Your task to perform on an android device: Find coffee shops on Maps Image 0: 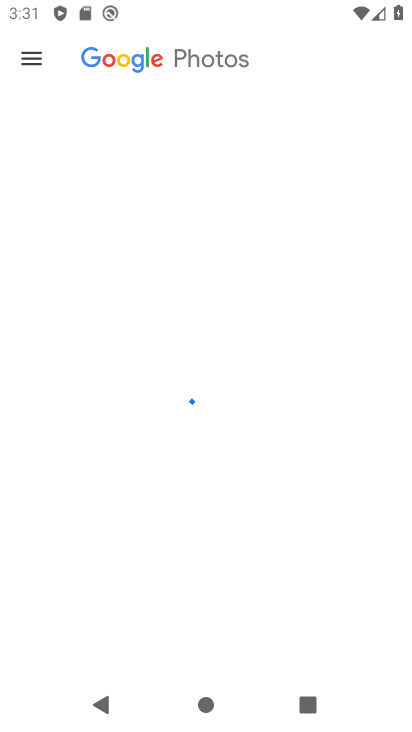
Step 0: press home button
Your task to perform on an android device: Find coffee shops on Maps Image 1: 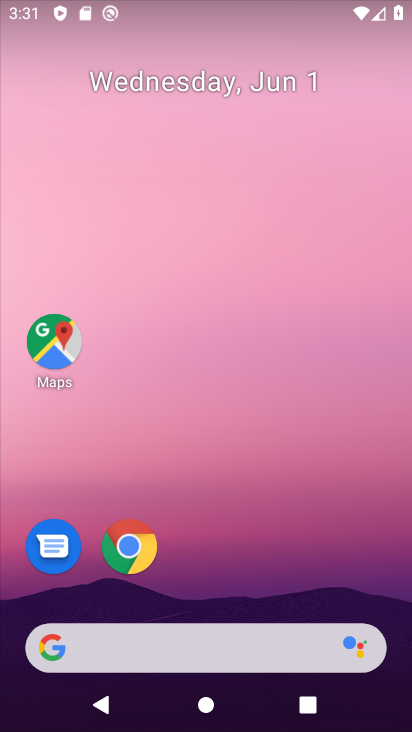
Step 1: click (66, 361)
Your task to perform on an android device: Find coffee shops on Maps Image 2: 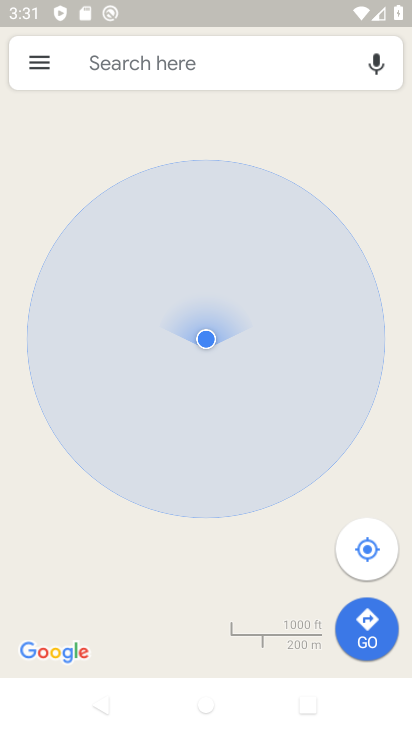
Step 2: click (151, 64)
Your task to perform on an android device: Find coffee shops on Maps Image 3: 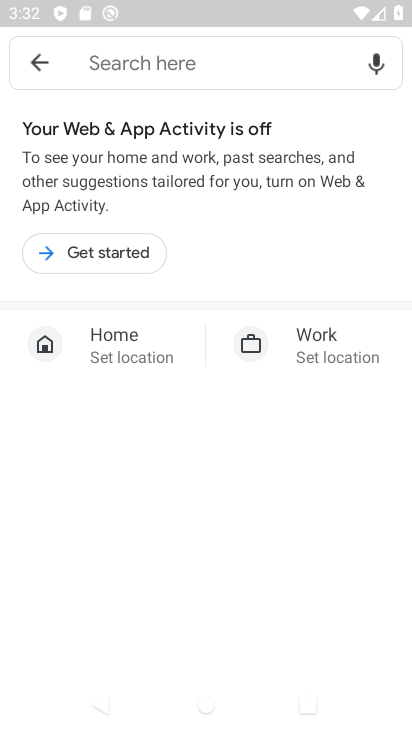
Step 3: click (151, 64)
Your task to perform on an android device: Find coffee shops on Maps Image 4: 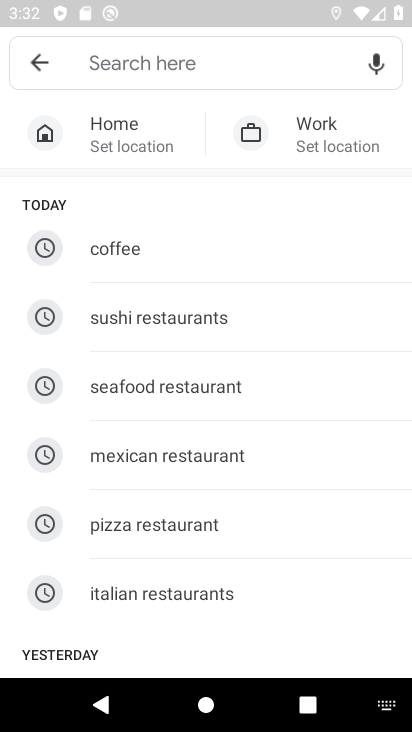
Step 4: type "coffee"
Your task to perform on an android device: Find coffee shops on Maps Image 5: 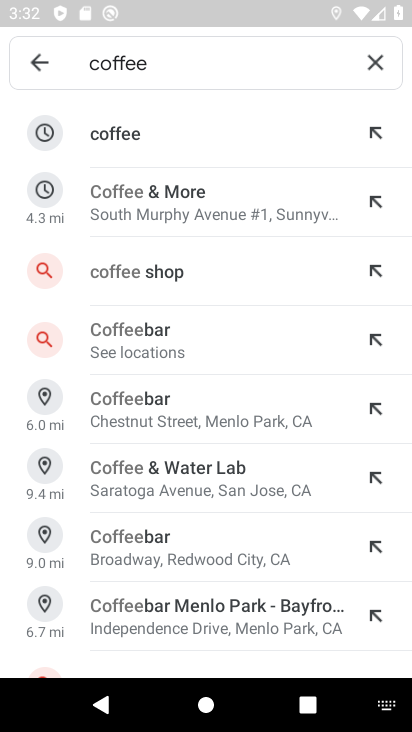
Step 5: click (219, 269)
Your task to perform on an android device: Find coffee shops on Maps Image 6: 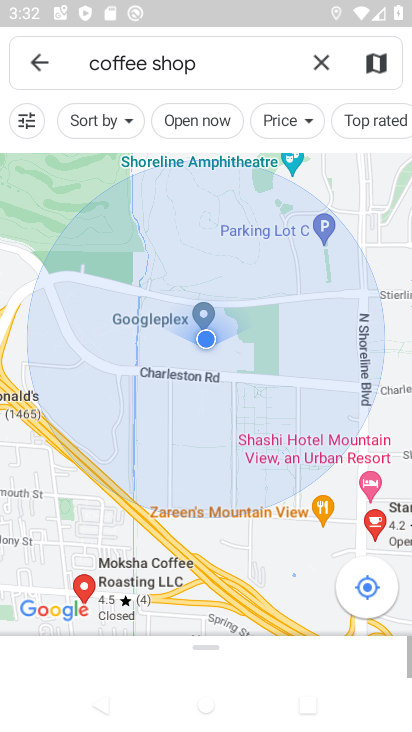
Step 6: task complete